Your task to perform on an android device: open app "Speedtest by Ookla" (install if not already installed) and go to login screen Image 0: 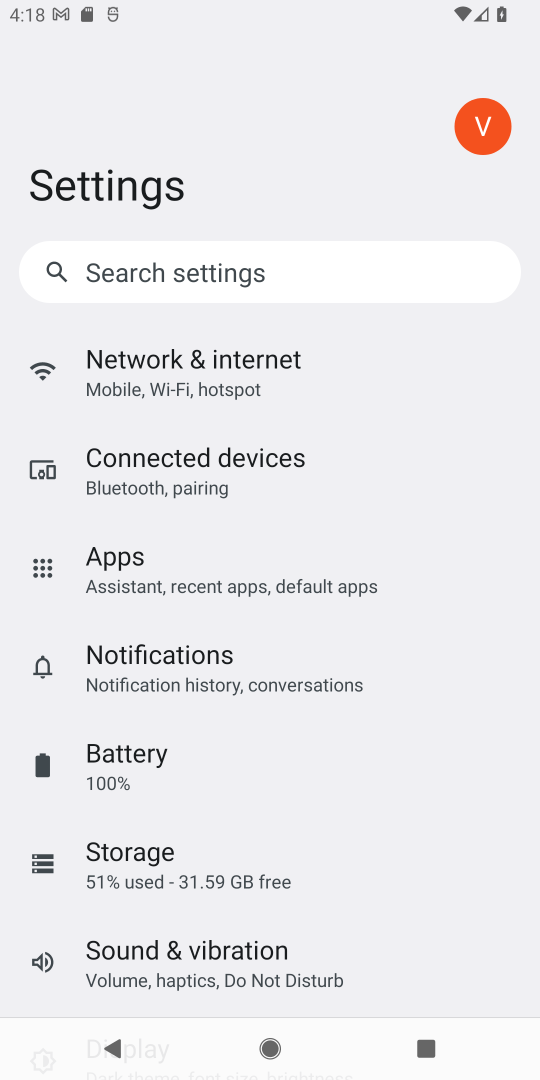
Step 0: press home button
Your task to perform on an android device: open app "Speedtest by Ookla" (install if not already installed) and go to login screen Image 1: 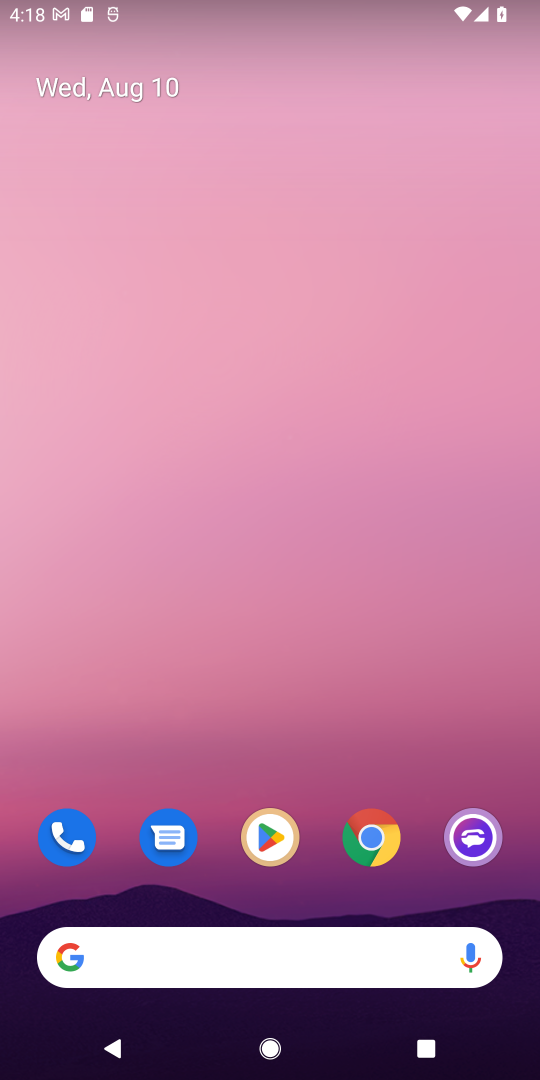
Step 1: click (270, 836)
Your task to perform on an android device: open app "Speedtest by Ookla" (install if not already installed) and go to login screen Image 2: 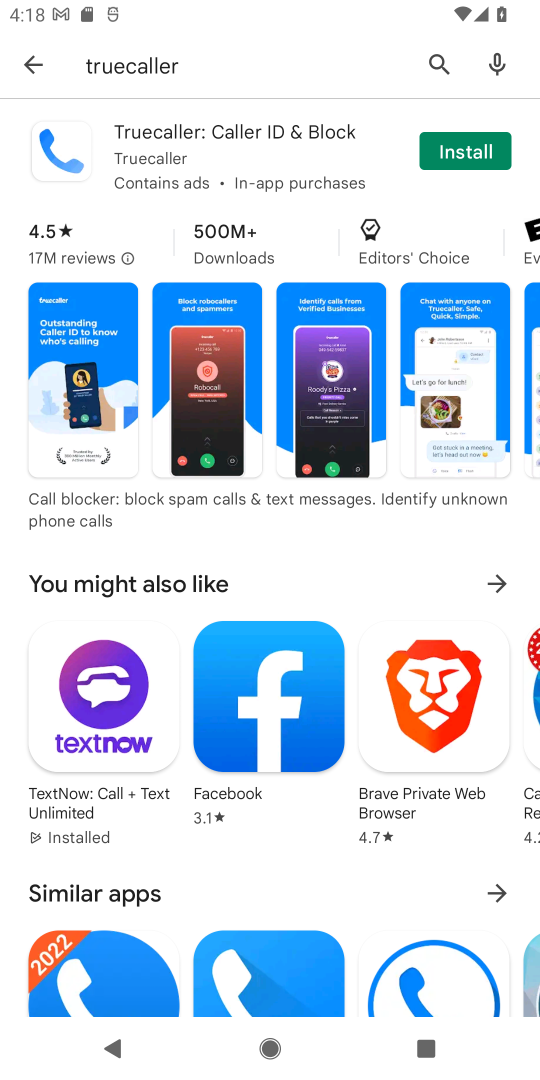
Step 2: click (431, 56)
Your task to perform on an android device: open app "Speedtest by Ookla" (install if not already installed) and go to login screen Image 3: 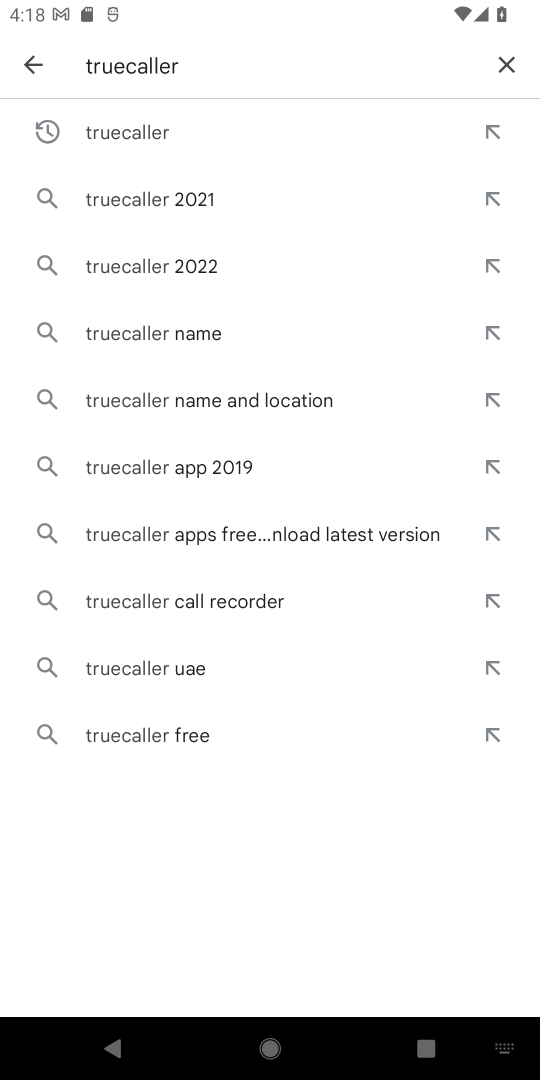
Step 3: click (501, 53)
Your task to perform on an android device: open app "Speedtest by Ookla" (install if not already installed) and go to login screen Image 4: 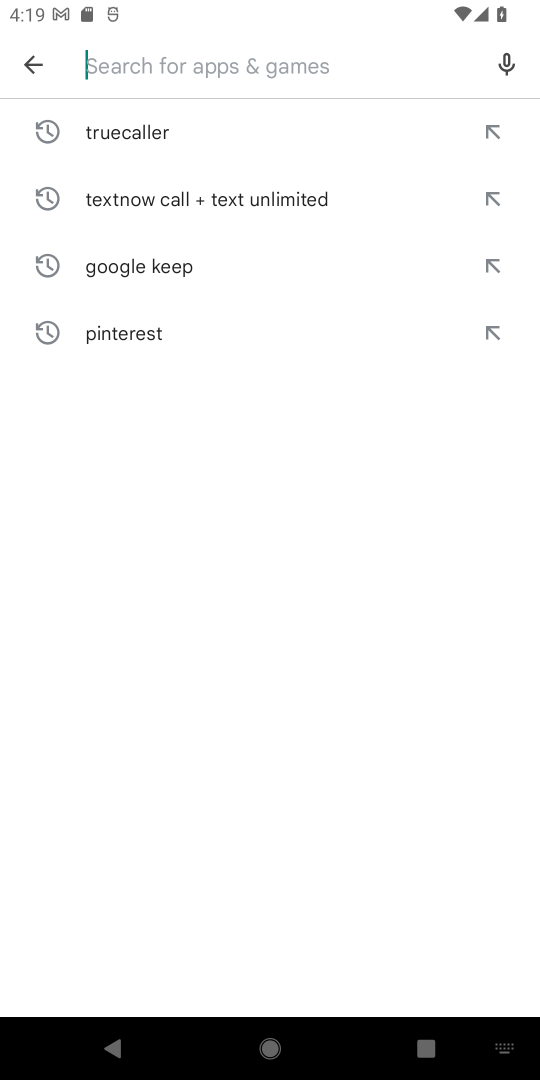
Step 4: type "Speedtest by Ookla"
Your task to perform on an android device: open app "Speedtest by Ookla" (install if not already installed) and go to login screen Image 5: 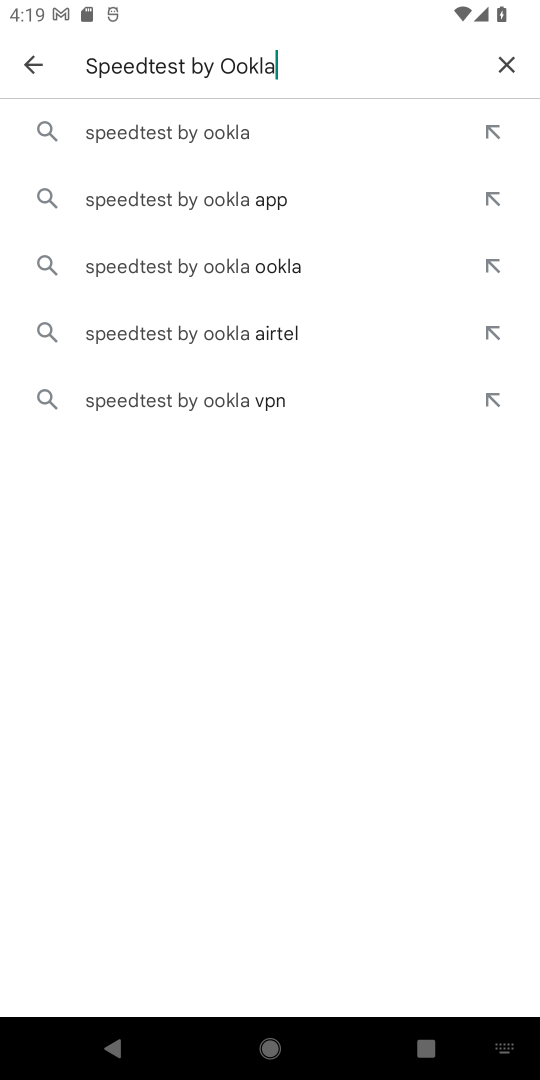
Step 5: click (148, 126)
Your task to perform on an android device: open app "Speedtest by Ookla" (install if not already installed) and go to login screen Image 6: 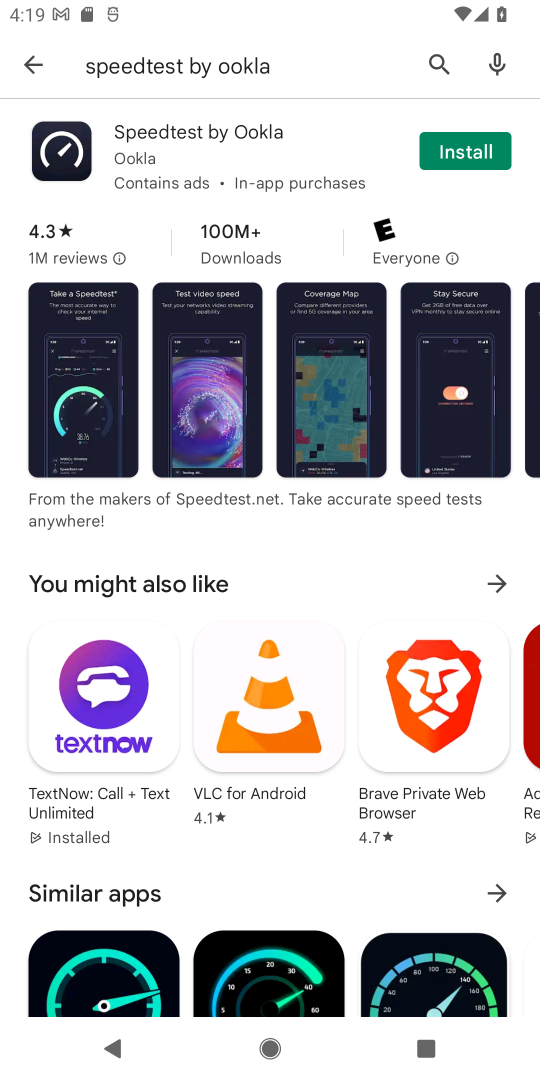
Step 6: click (461, 146)
Your task to perform on an android device: open app "Speedtest by Ookla" (install if not already installed) and go to login screen Image 7: 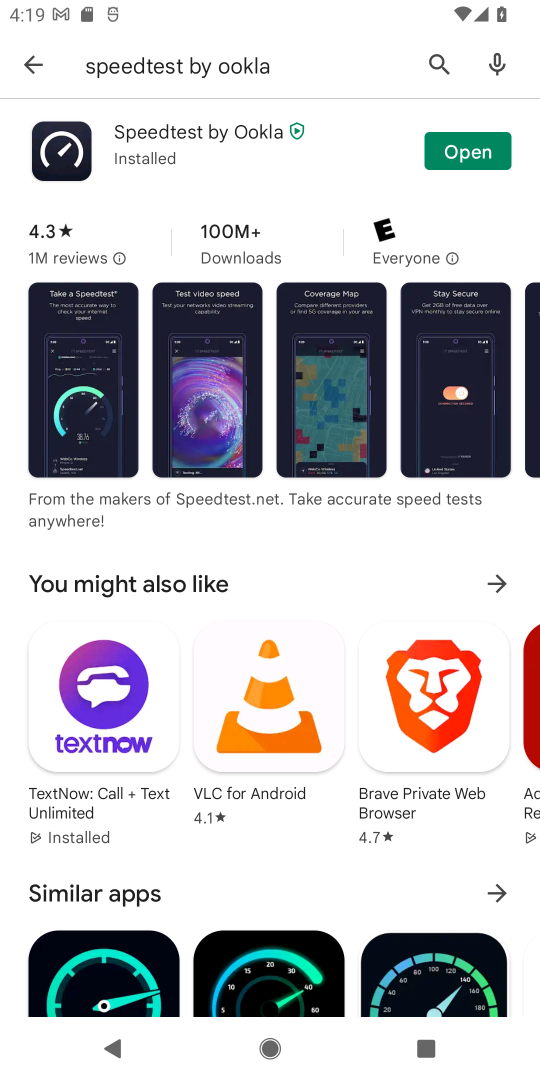
Step 7: click (468, 144)
Your task to perform on an android device: open app "Speedtest by Ookla" (install if not already installed) and go to login screen Image 8: 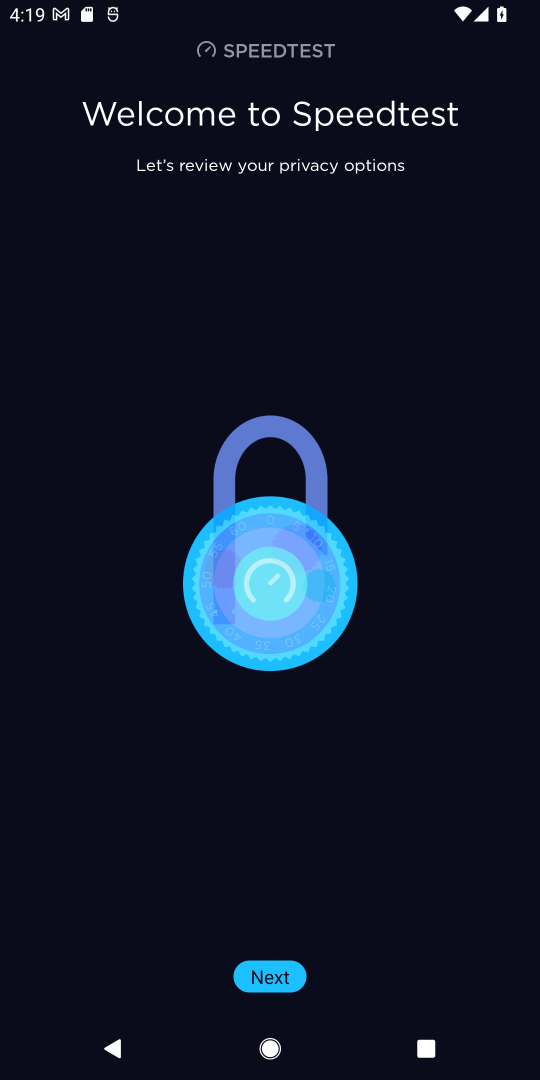
Step 8: click (273, 982)
Your task to perform on an android device: open app "Speedtest by Ookla" (install if not already installed) and go to login screen Image 9: 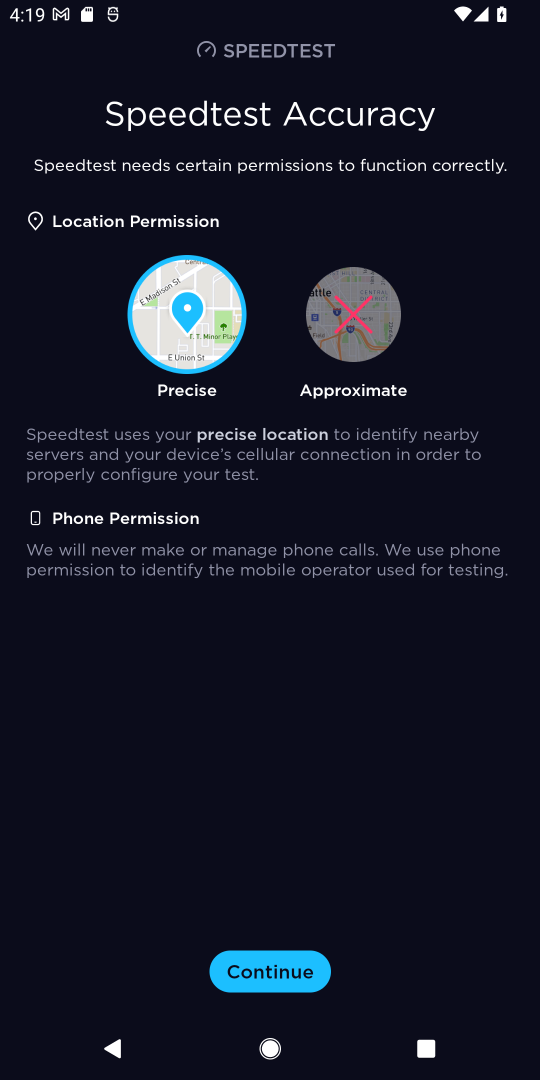
Step 9: click (273, 982)
Your task to perform on an android device: open app "Speedtest by Ookla" (install if not already installed) and go to login screen Image 10: 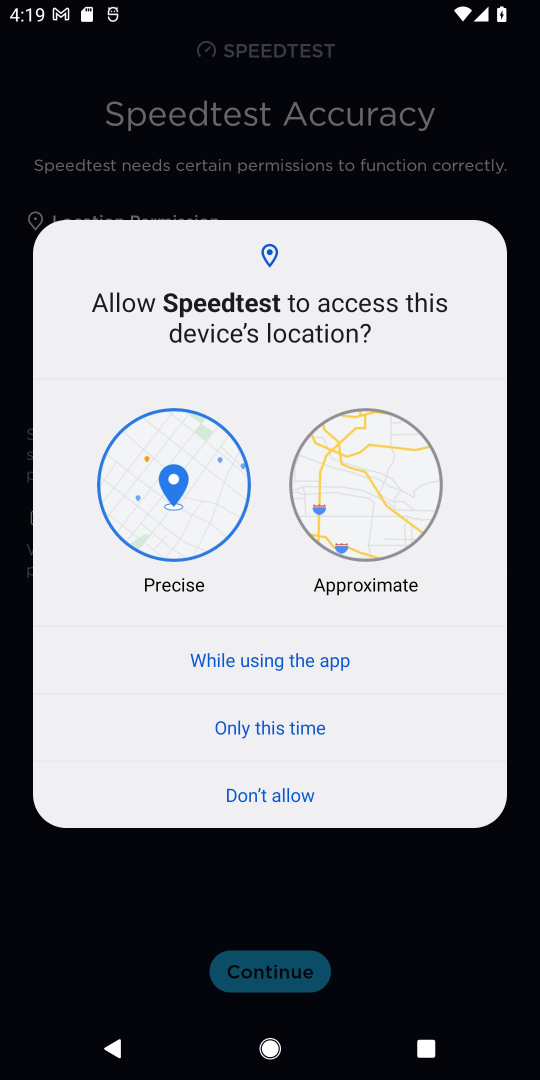
Step 10: task complete